Your task to perform on an android device: Go to Android settings Image 0: 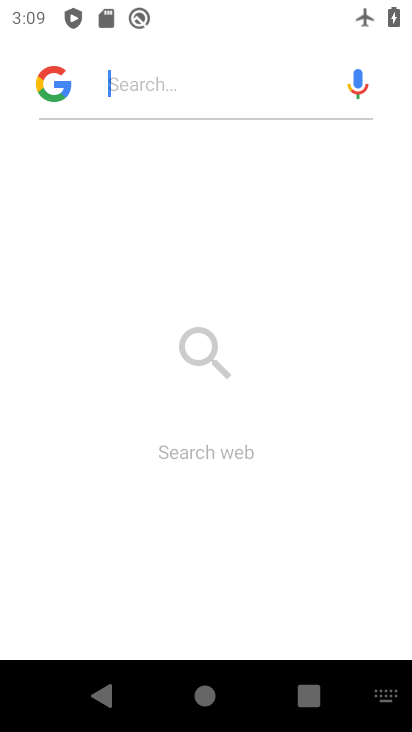
Step 0: press home button
Your task to perform on an android device: Go to Android settings Image 1: 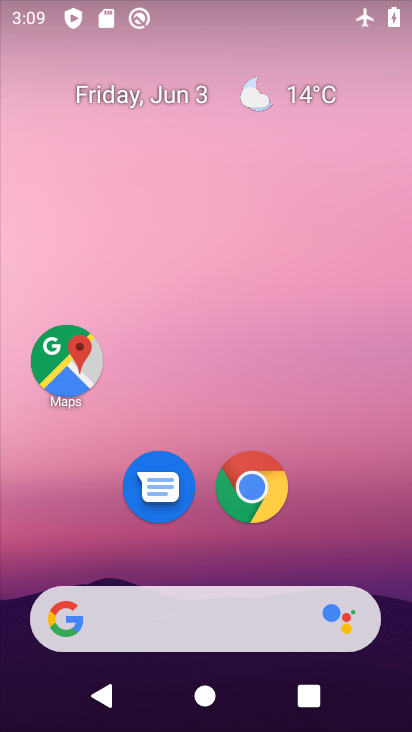
Step 1: drag from (169, 544) to (281, 10)
Your task to perform on an android device: Go to Android settings Image 2: 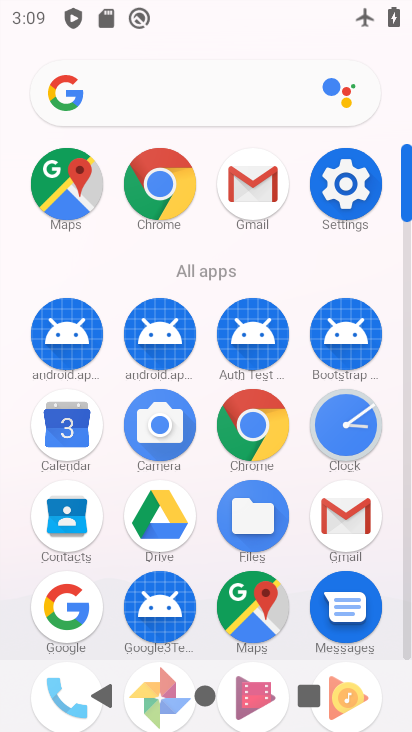
Step 2: click (348, 200)
Your task to perform on an android device: Go to Android settings Image 3: 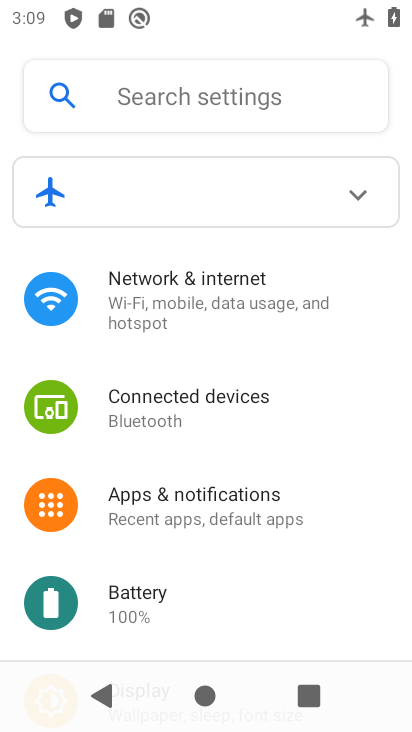
Step 3: drag from (155, 595) to (233, 67)
Your task to perform on an android device: Go to Android settings Image 4: 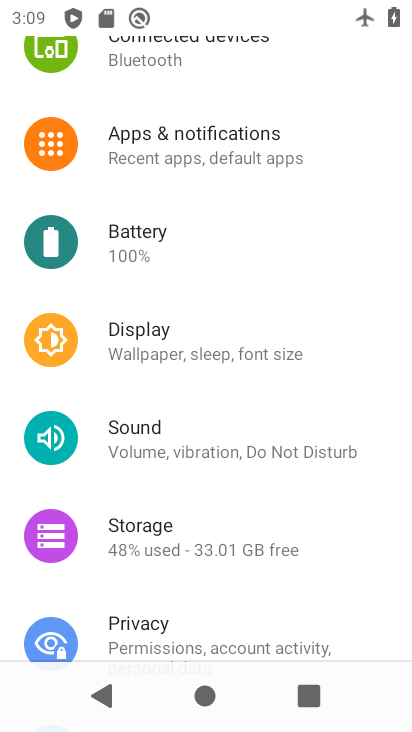
Step 4: drag from (197, 477) to (310, 3)
Your task to perform on an android device: Go to Android settings Image 5: 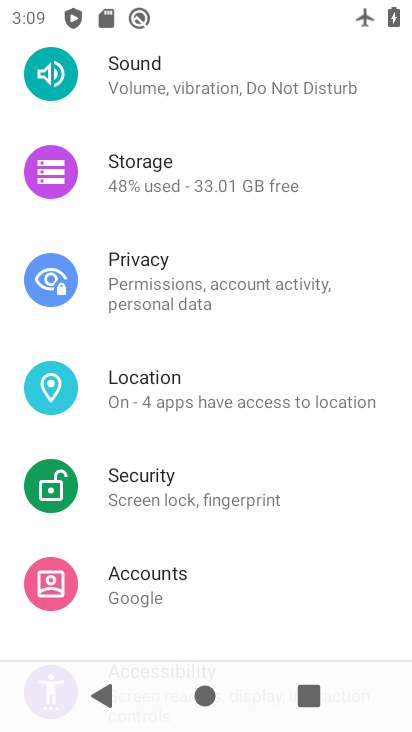
Step 5: drag from (157, 593) to (256, 7)
Your task to perform on an android device: Go to Android settings Image 6: 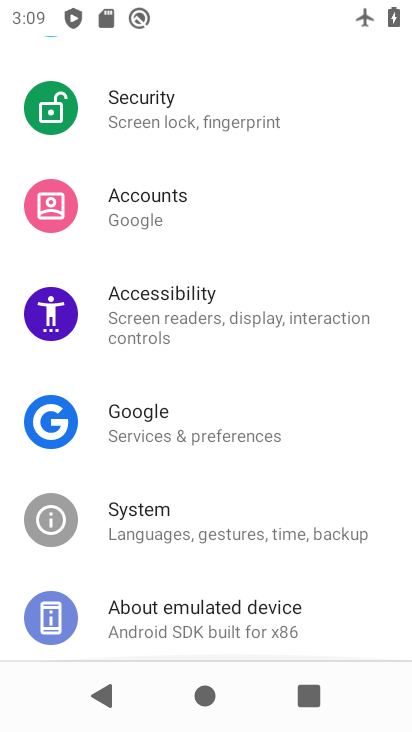
Step 6: drag from (173, 597) to (249, 1)
Your task to perform on an android device: Go to Android settings Image 7: 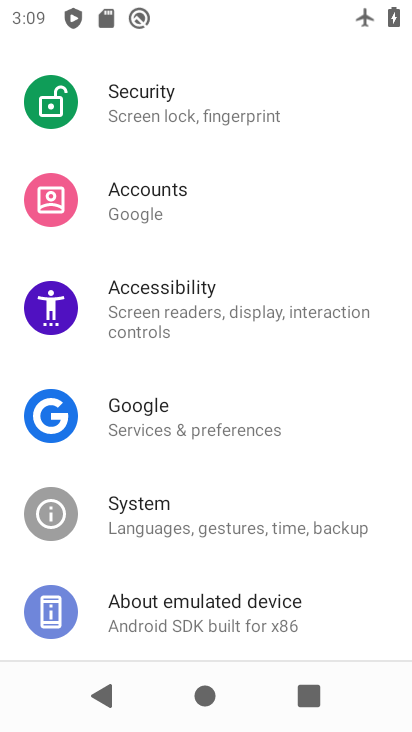
Step 7: click (152, 617)
Your task to perform on an android device: Go to Android settings Image 8: 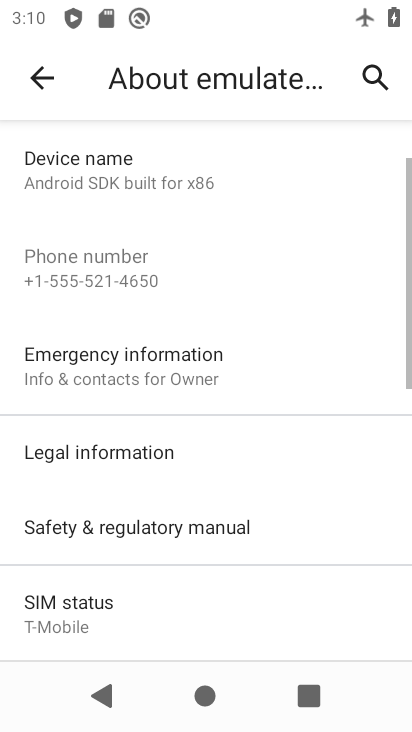
Step 8: task complete